Your task to perform on an android device: Turn off the flashlight Image 0: 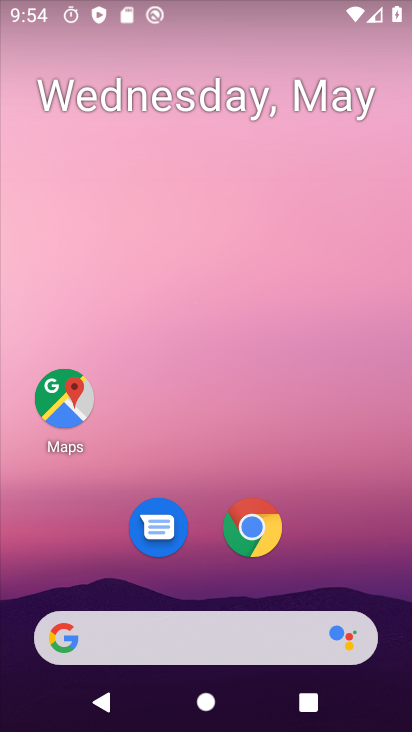
Step 0: drag from (279, 11) to (195, 447)
Your task to perform on an android device: Turn off the flashlight Image 1: 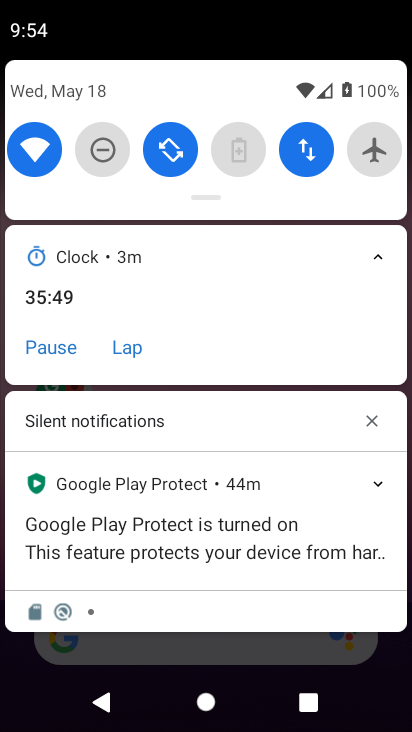
Step 1: task complete